Your task to perform on an android device: Go to internet settings Image 0: 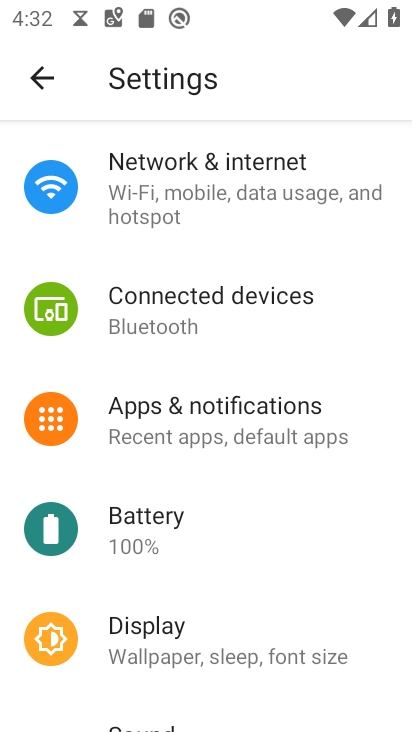
Step 0: click (168, 190)
Your task to perform on an android device: Go to internet settings Image 1: 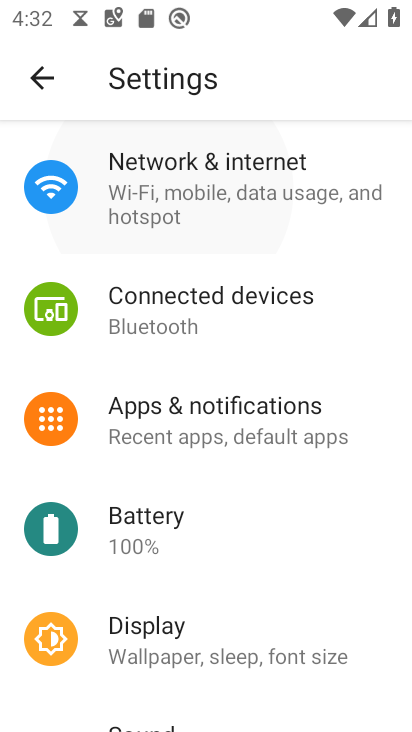
Step 1: click (168, 190)
Your task to perform on an android device: Go to internet settings Image 2: 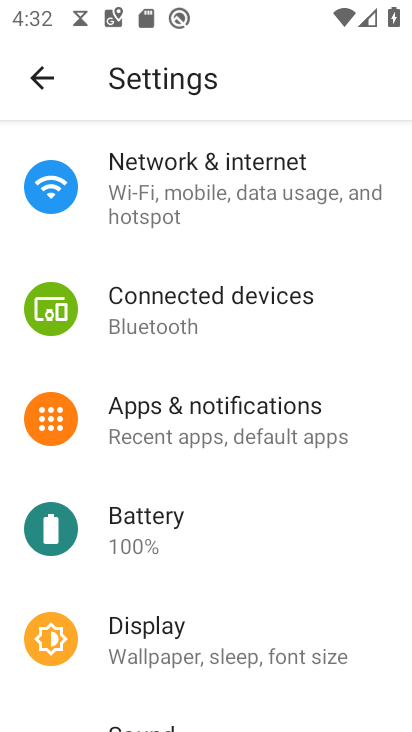
Step 2: click (164, 195)
Your task to perform on an android device: Go to internet settings Image 3: 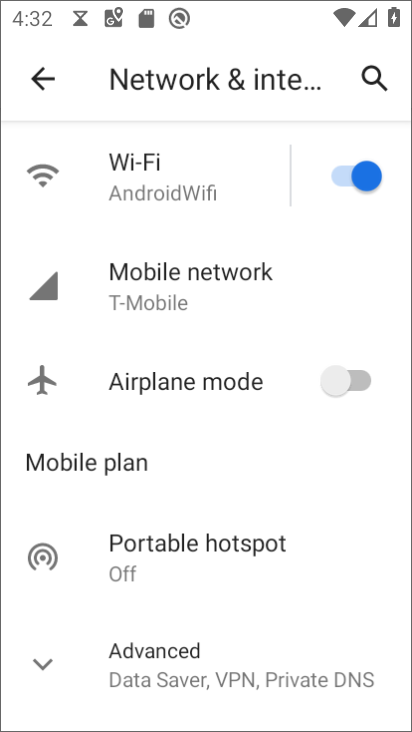
Step 3: click (180, 177)
Your task to perform on an android device: Go to internet settings Image 4: 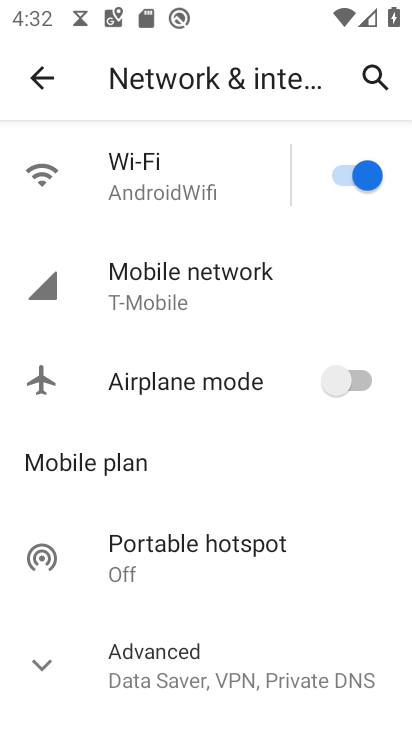
Step 4: click (189, 195)
Your task to perform on an android device: Go to internet settings Image 5: 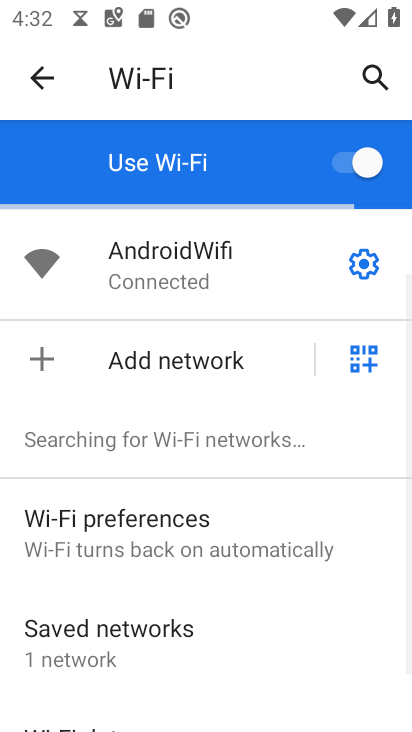
Step 5: click (34, 66)
Your task to perform on an android device: Go to internet settings Image 6: 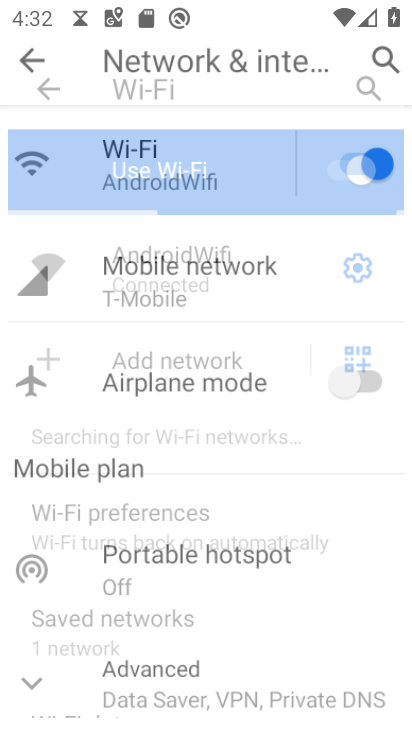
Step 6: task complete